Your task to perform on an android device: Go to Reddit.com Image 0: 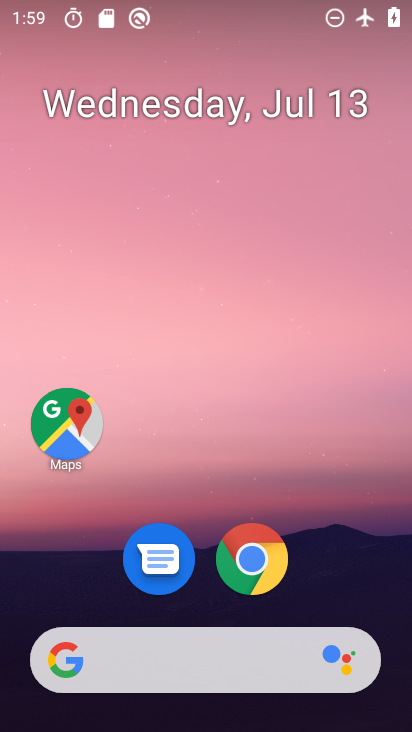
Step 0: drag from (204, 540) to (240, 202)
Your task to perform on an android device: Go to Reddit.com Image 1: 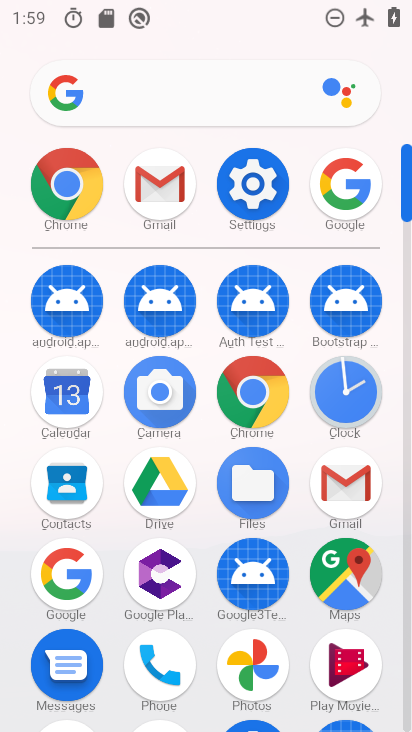
Step 1: click (80, 189)
Your task to perform on an android device: Go to Reddit.com Image 2: 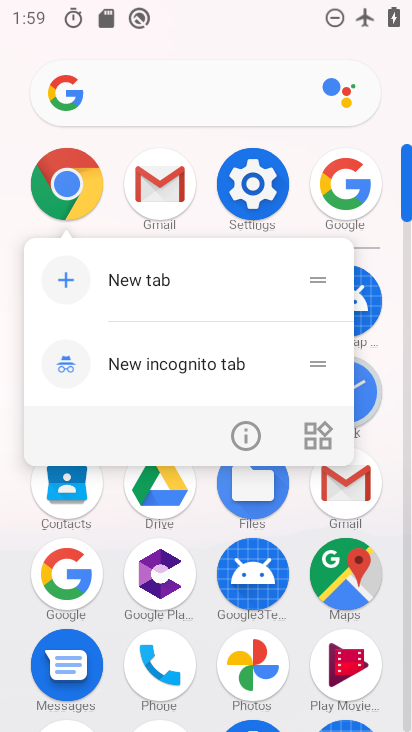
Step 2: click (80, 189)
Your task to perform on an android device: Go to Reddit.com Image 3: 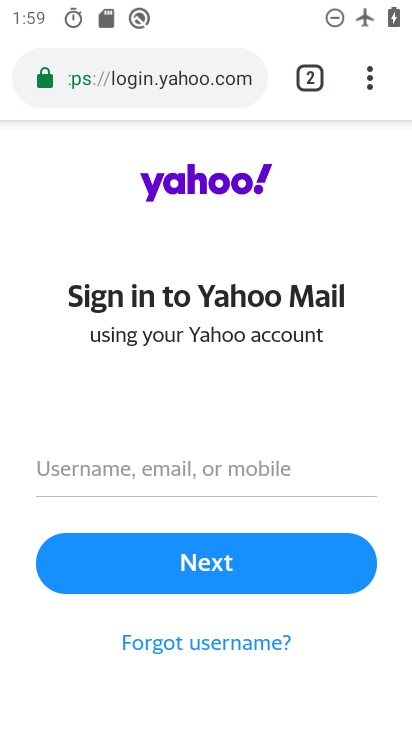
Step 3: click (191, 73)
Your task to perform on an android device: Go to Reddit.com Image 4: 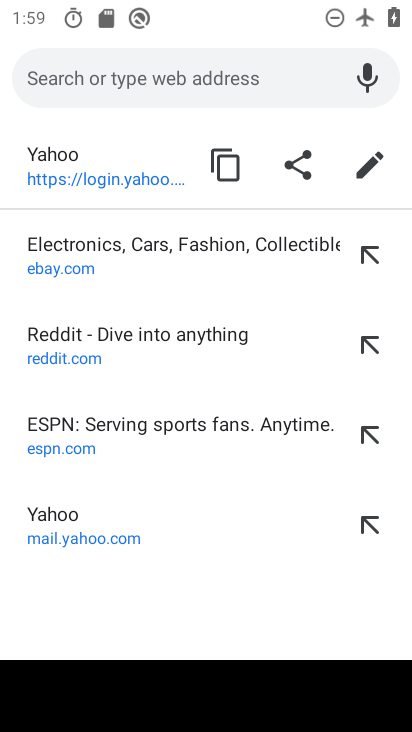
Step 4: click (101, 349)
Your task to perform on an android device: Go to Reddit.com Image 5: 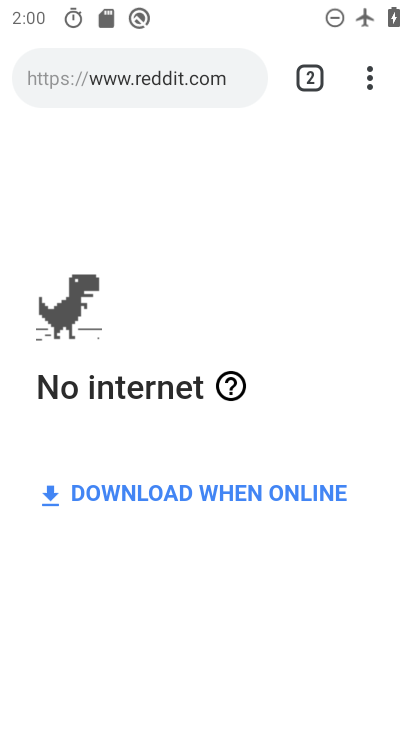
Step 5: task complete